Your task to perform on an android device: What's on my calendar today? Image 0: 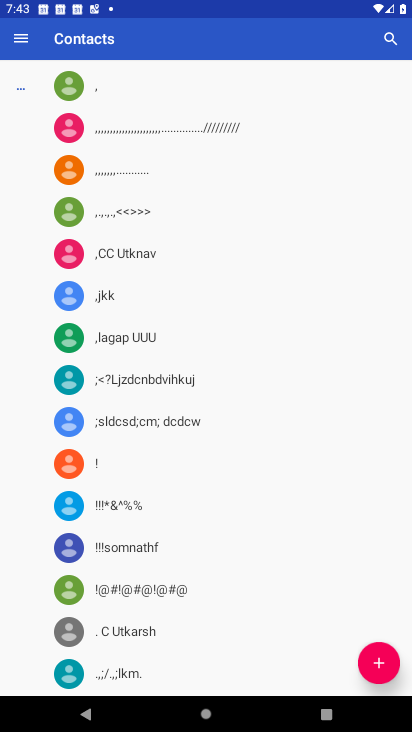
Step 0: press home button
Your task to perform on an android device: What's on my calendar today? Image 1: 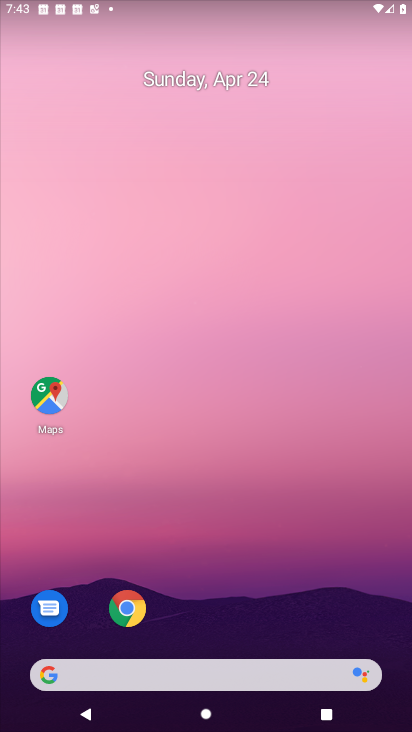
Step 1: drag from (267, 630) to (219, 170)
Your task to perform on an android device: What's on my calendar today? Image 2: 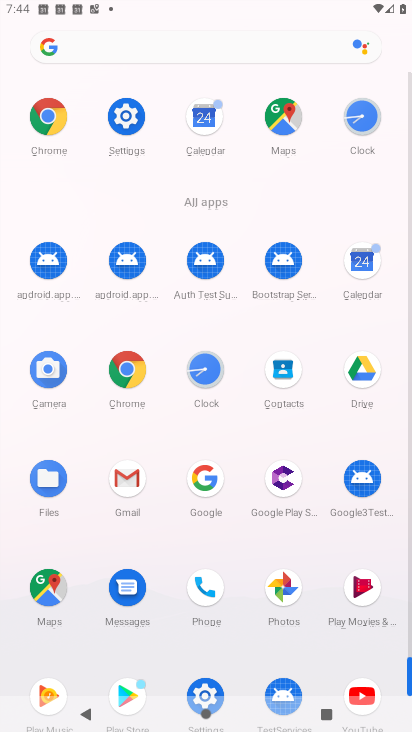
Step 2: click (358, 245)
Your task to perform on an android device: What's on my calendar today? Image 3: 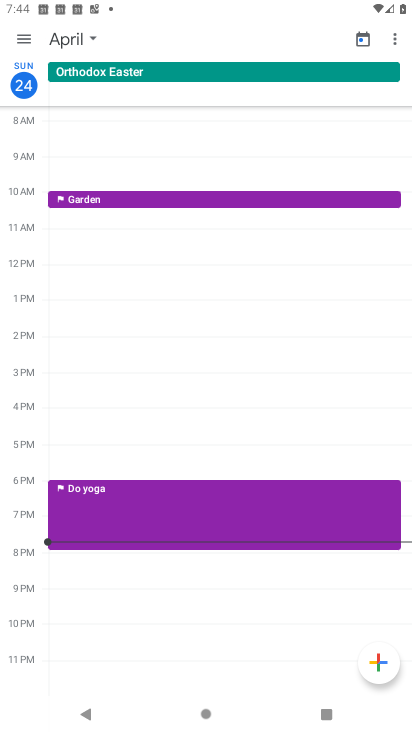
Step 3: click (17, 77)
Your task to perform on an android device: What's on my calendar today? Image 4: 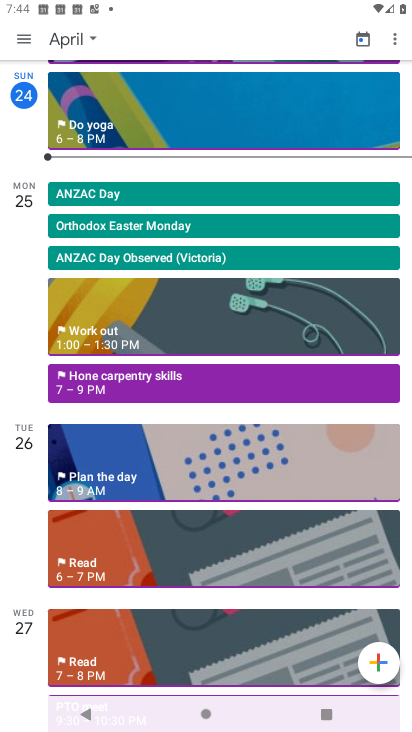
Step 4: task complete